Your task to perform on an android device: install app "Pandora - Music & Podcasts" Image 0: 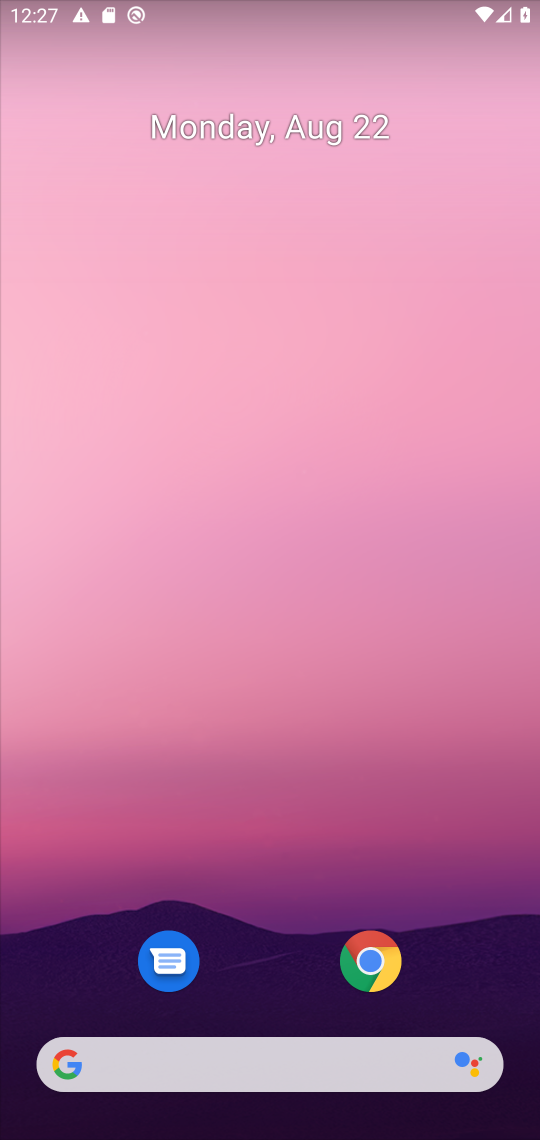
Step 0: press home button
Your task to perform on an android device: install app "Pandora - Music & Podcasts" Image 1: 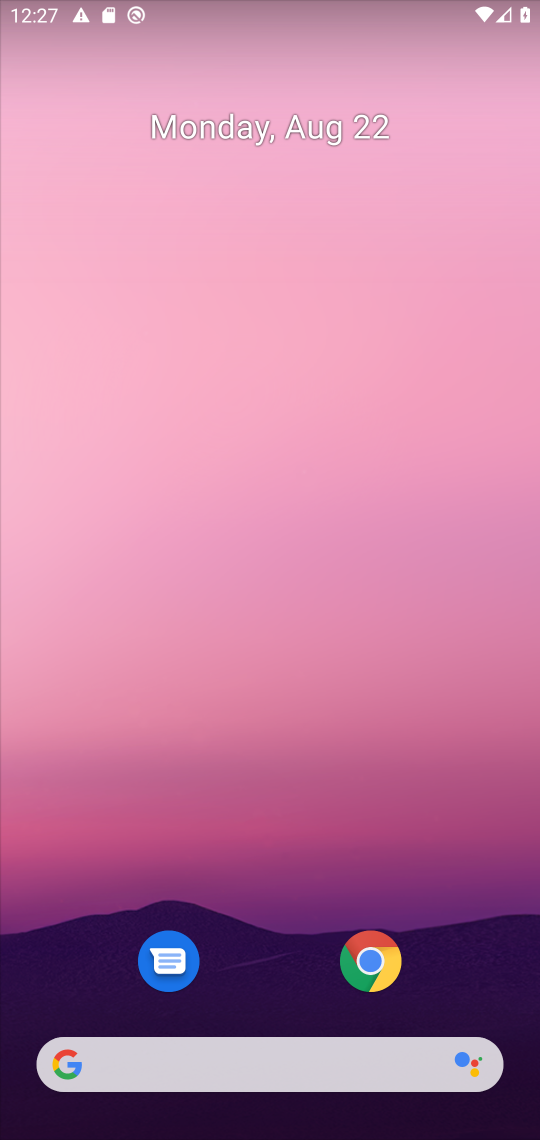
Step 1: drag from (481, 900) to (501, 58)
Your task to perform on an android device: install app "Pandora - Music & Podcasts" Image 2: 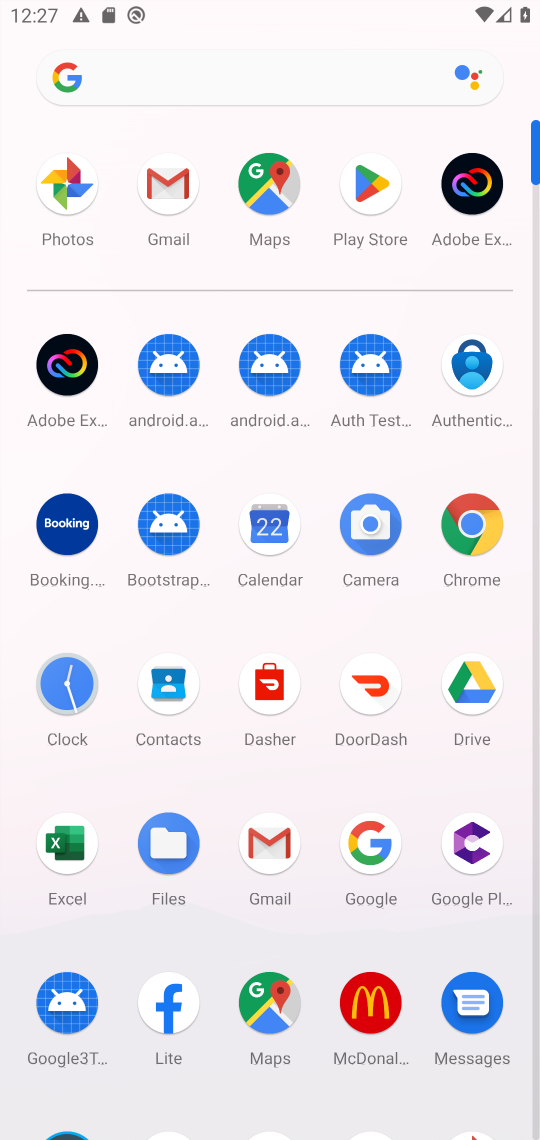
Step 2: click (367, 192)
Your task to perform on an android device: install app "Pandora - Music & Podcasts" Image 3: 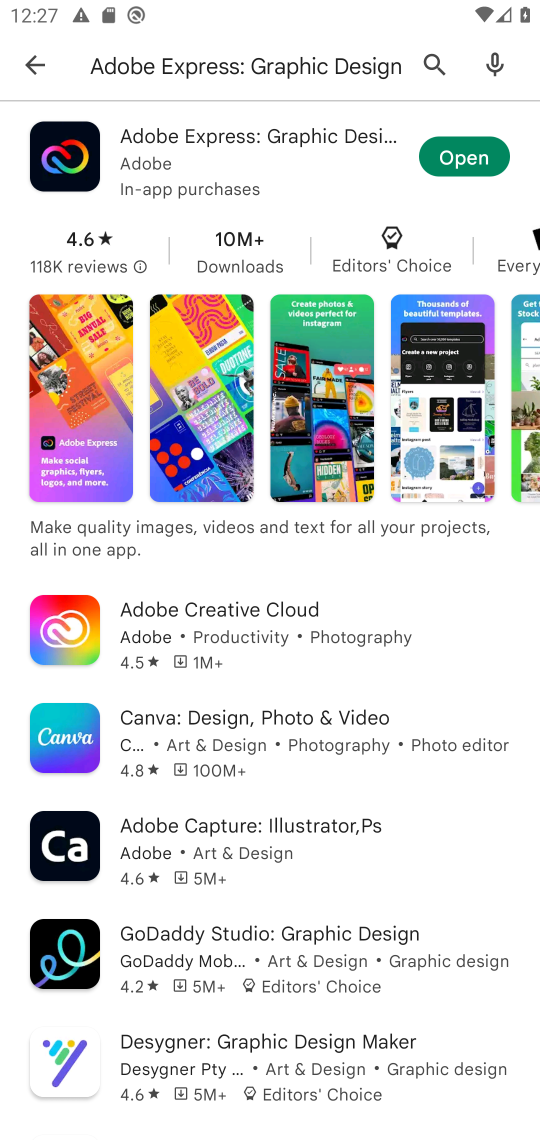
Step 3: press back button
Your task to perform on an android device: install app "Pandora - Music & Podcasts" Image 4: 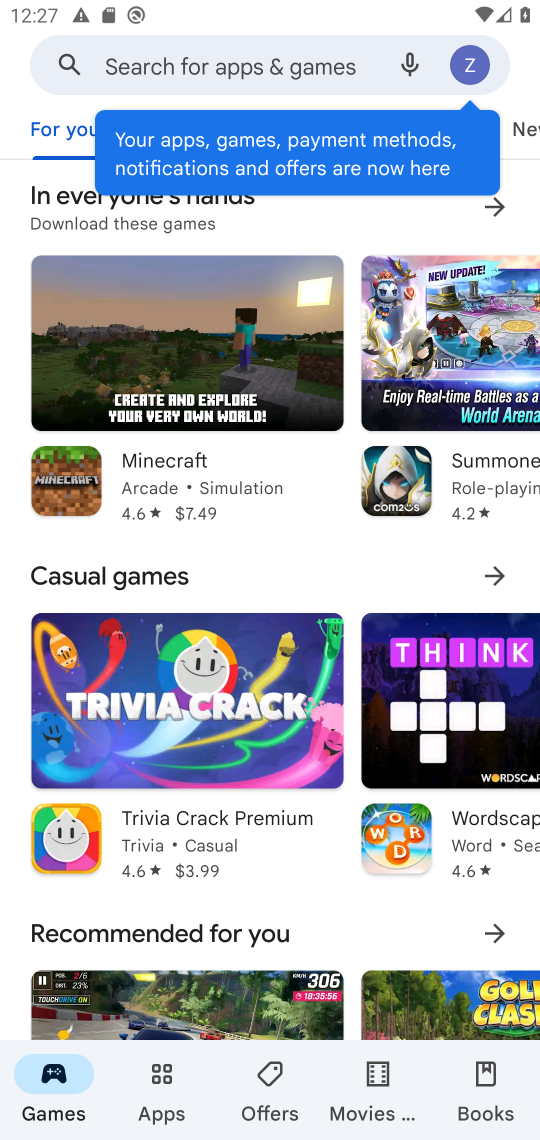
Step 4: click (321, 72)
Your task to perform on an android device: install app "Pandora - Music & Podcasts" Image 5: 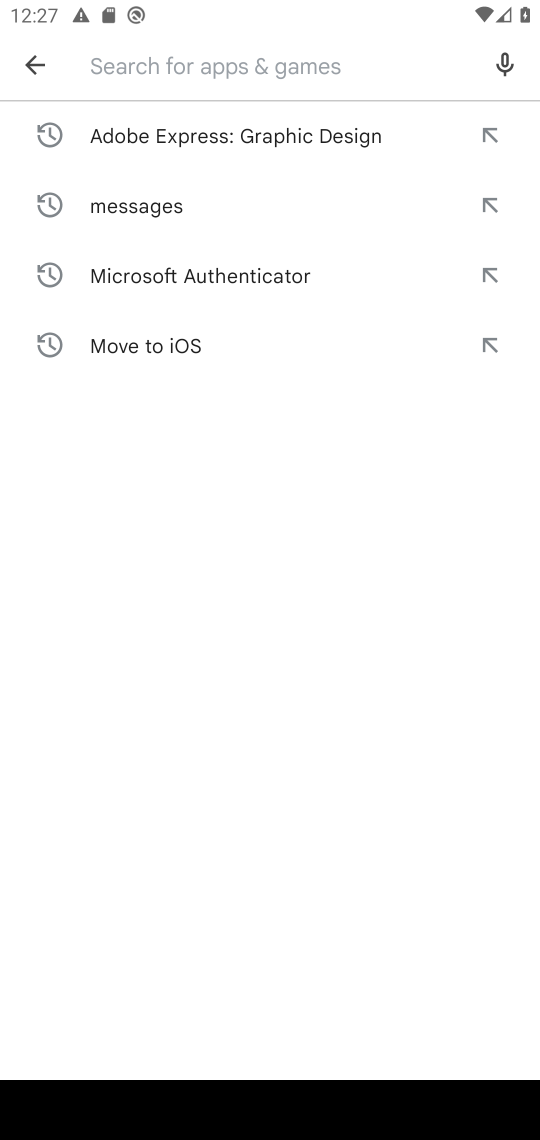
Step 5: type "Pandora - Music & Podcasts"
Your task to perform on an android device: install app "Pandora - Music & Podcasts" Image 6: 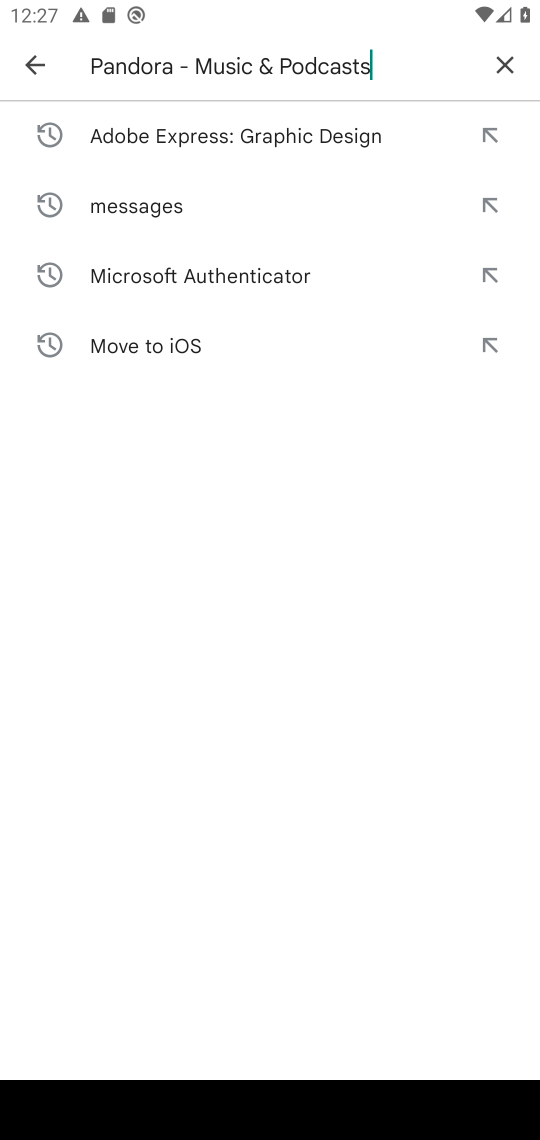
Step 6: press enter
Your task to perform on an android device: install app "Pandora - Music & Podcasts" Image 7: 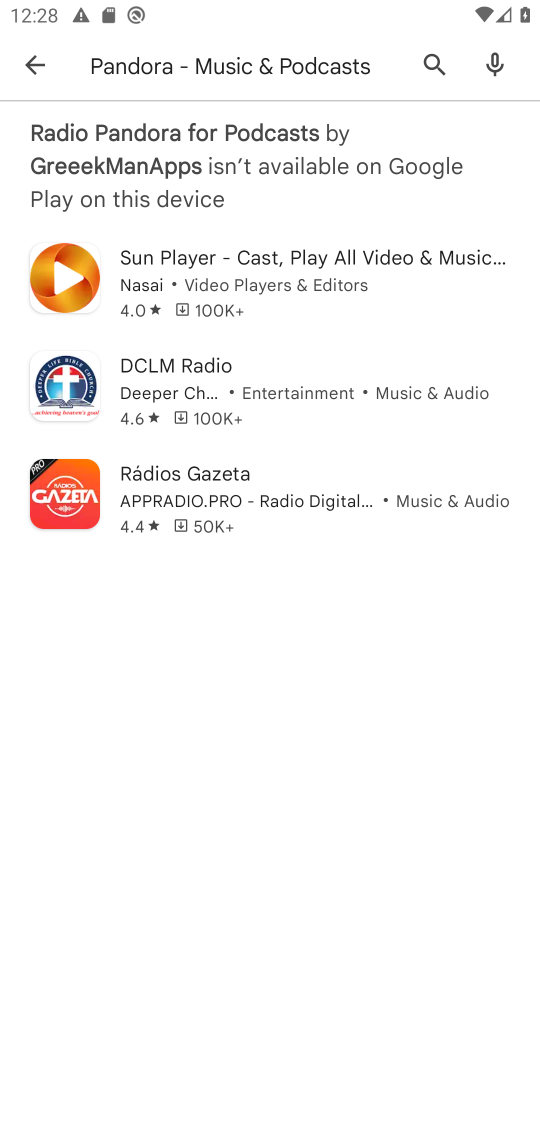
Step 7: task complete